Your task to perform on an android device: Open the calendar app, open the side menu, and click the "Day" option Image 0: 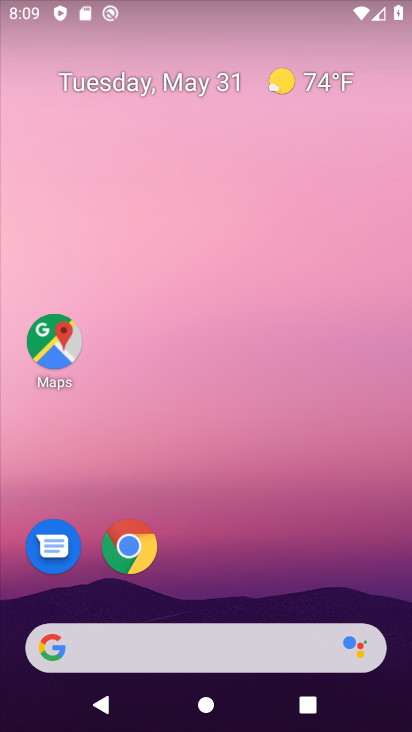
Step 0: drag from (240, 557) to (327, 96)
Your task to perform on an android device: Open the calendar app, open the side menu, and click the "Day" option Image 1: 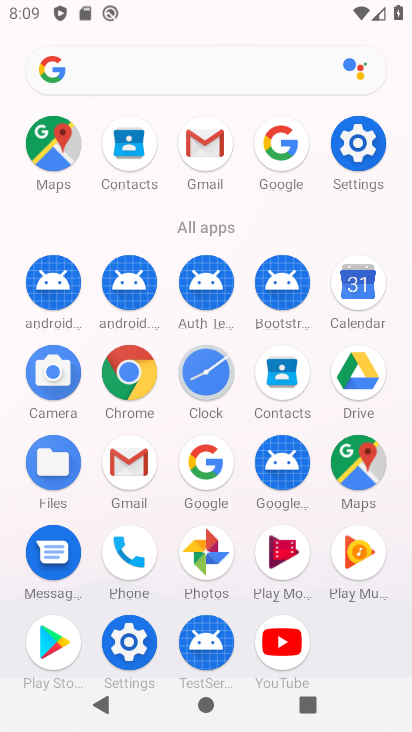
Step 1: click (356, 284)
Your task to perform on an android device: Open the calendar app, open the side menu, and click the "Day" option Image 2: 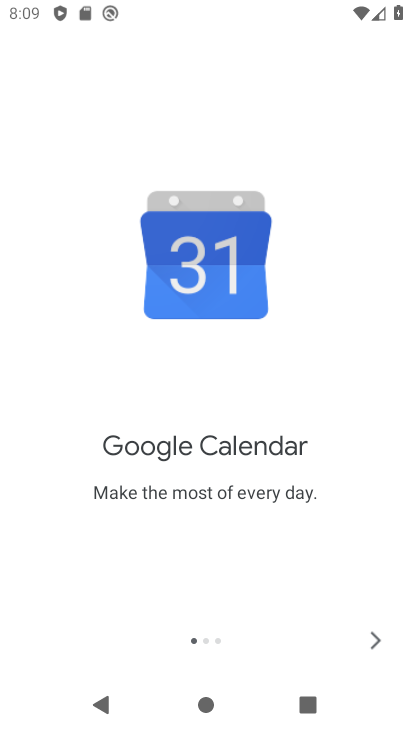
Step 2: click (375, 631)
Your task to perform on an android device: Open the calendar app, open the side menu, and click the "Day" option Image 3: 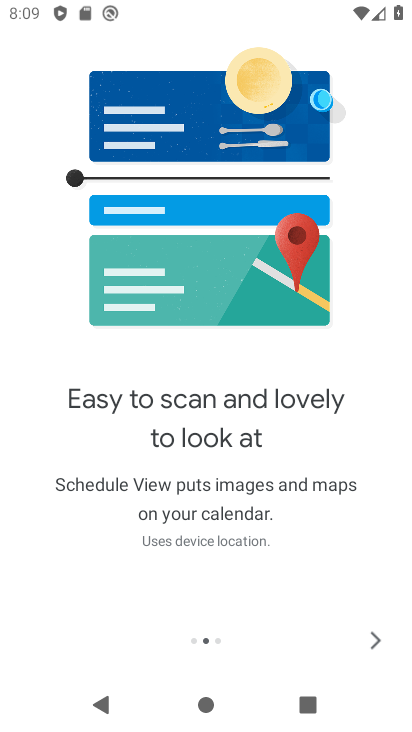
Step 3: click (375, 631)
Your task to perform on an android device: Open the calendar app, open the side menu, and click the "Day" option Image 4: 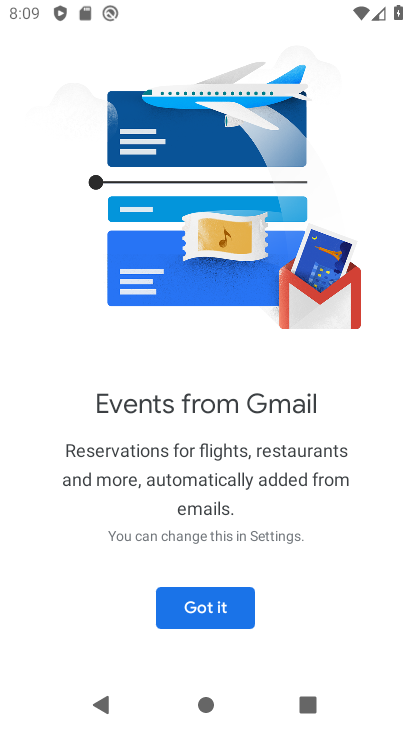
Step 4: click (375, 631)
Your task to perform on an android device: Open the calendar app, open the side menu, and click the "Day" option Image 5: 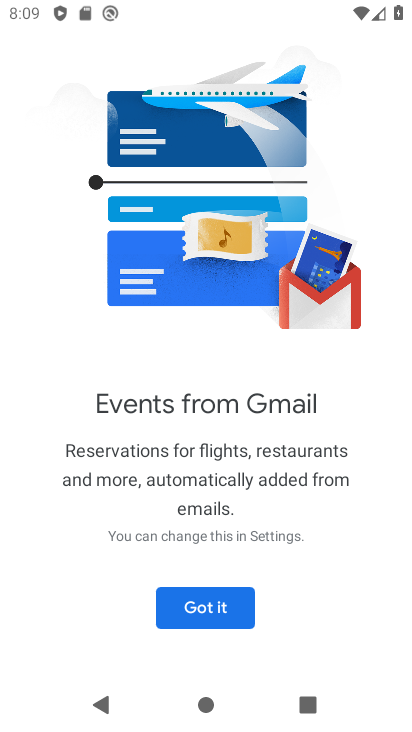
Step 5: click (195, 613)
Your task to perform on an android device: Open the calendar app, open the side menu, and click the "Day" option Image 6: 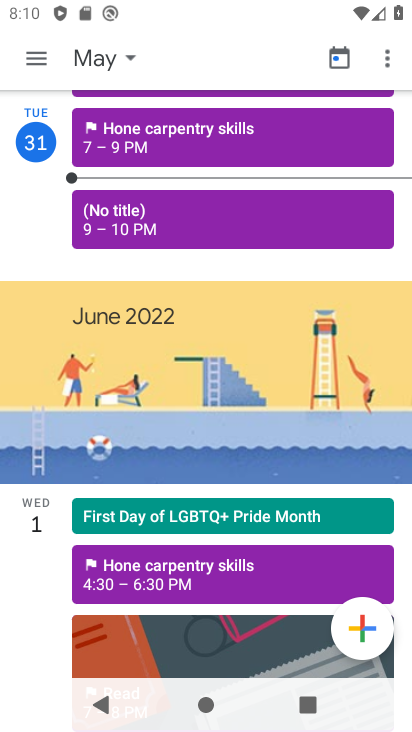
Step 6: click (37, 64)
Your task to perform on an android device: Open the calendar app, open the side menu, and click the "Day" option Image 7: 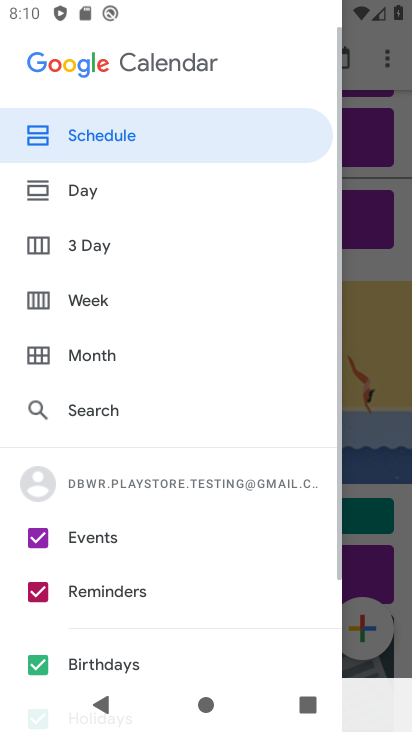
Step 7: click (99, 186)
Your task to perform on an android device: Open the calendar app, open the side menu, and click the "Day" option Image 8: 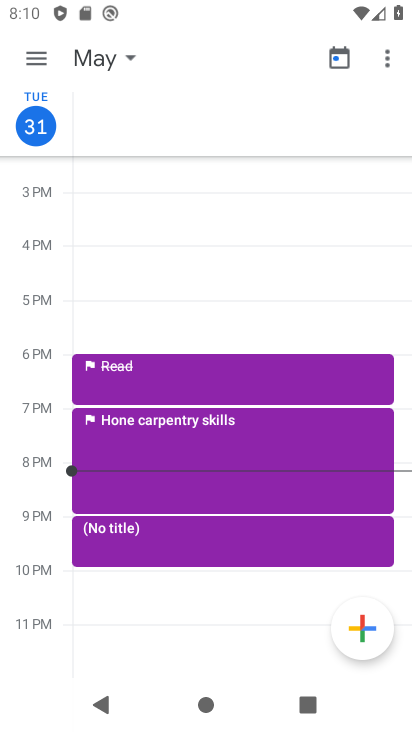
Step 8: task complete